Your task to perform on an android device: Search for the top rated book on goodreads. Image 0: 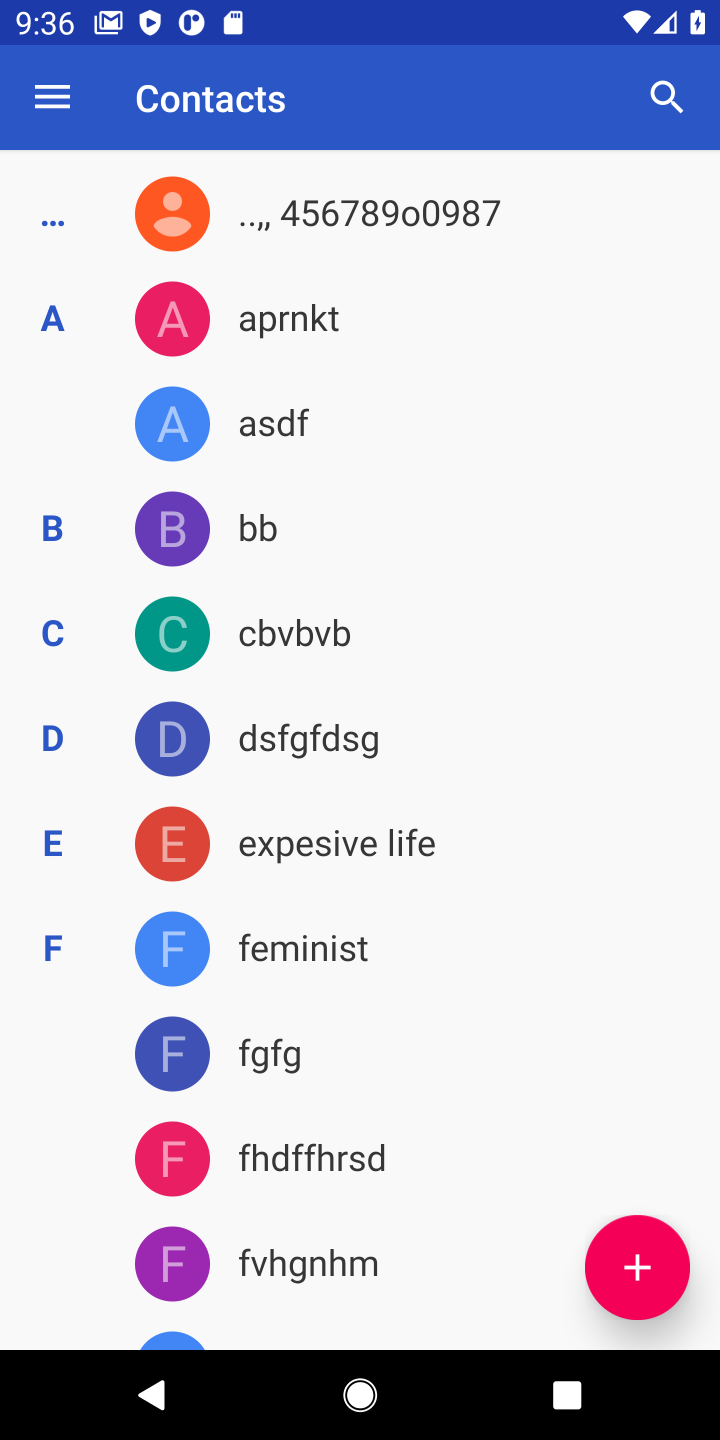
Step 0: press home button
Your task to perform on an android device: Search for the top rated book on goodreads. Image 1: 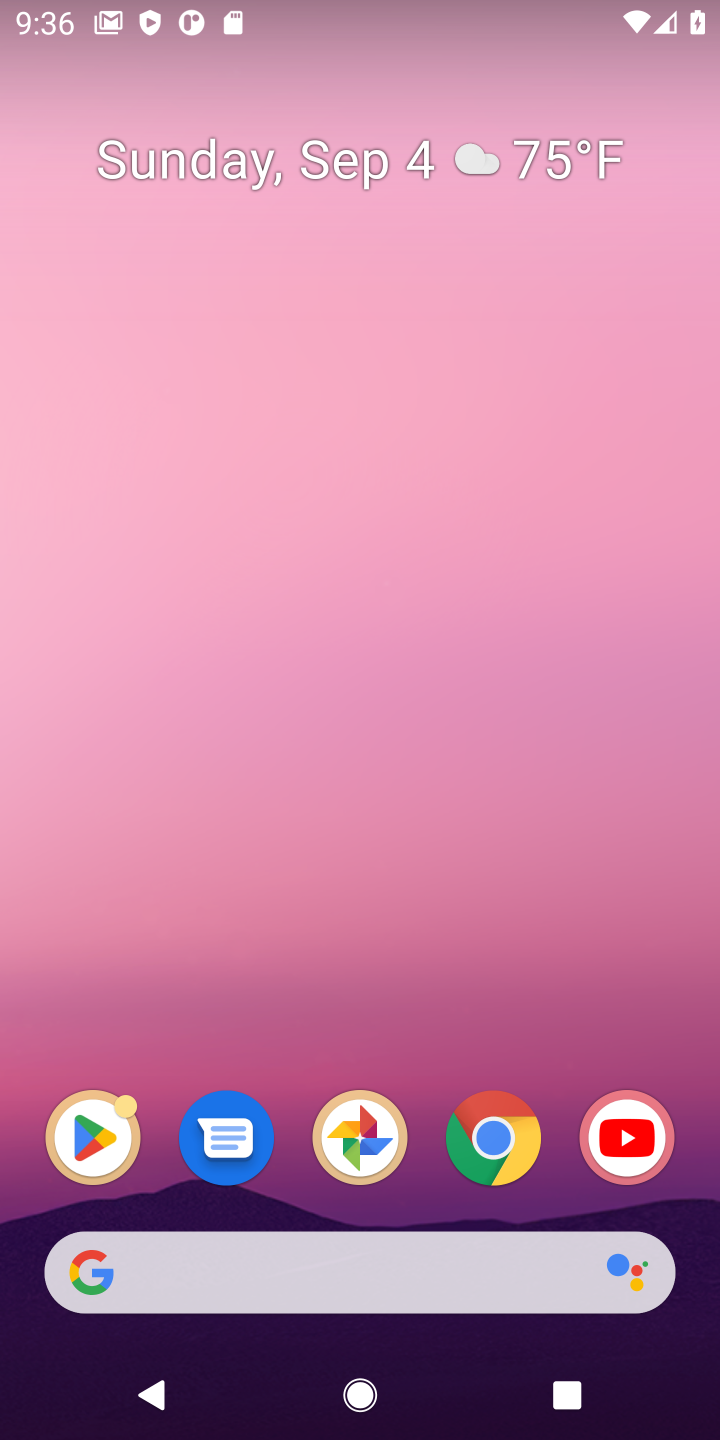
Step 1: click (507, 1145)
Your task to perform on an android device: Search for the top rated book on goodreads. Image 2: 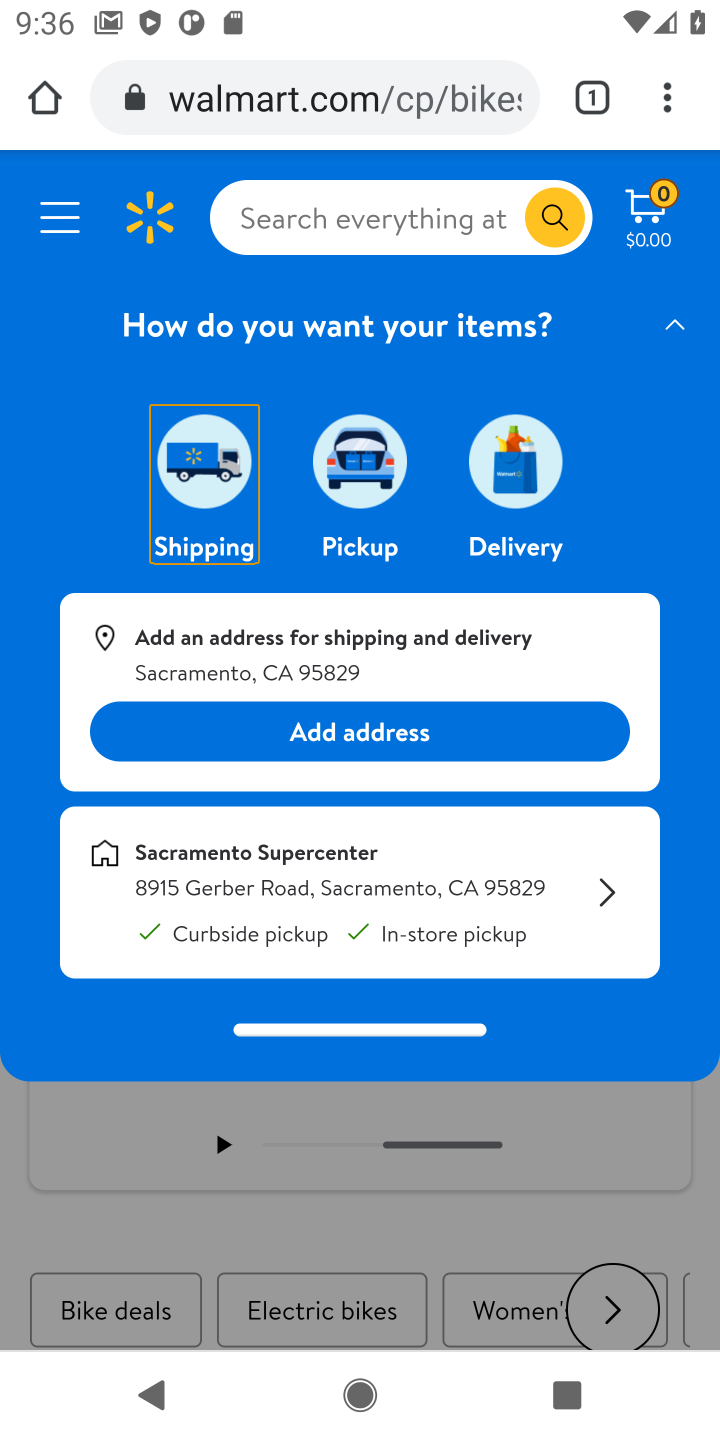
Step 2: click (389, 107)
Your task to perform on an android device: Search for the top rated book on goodreads. Image 3: 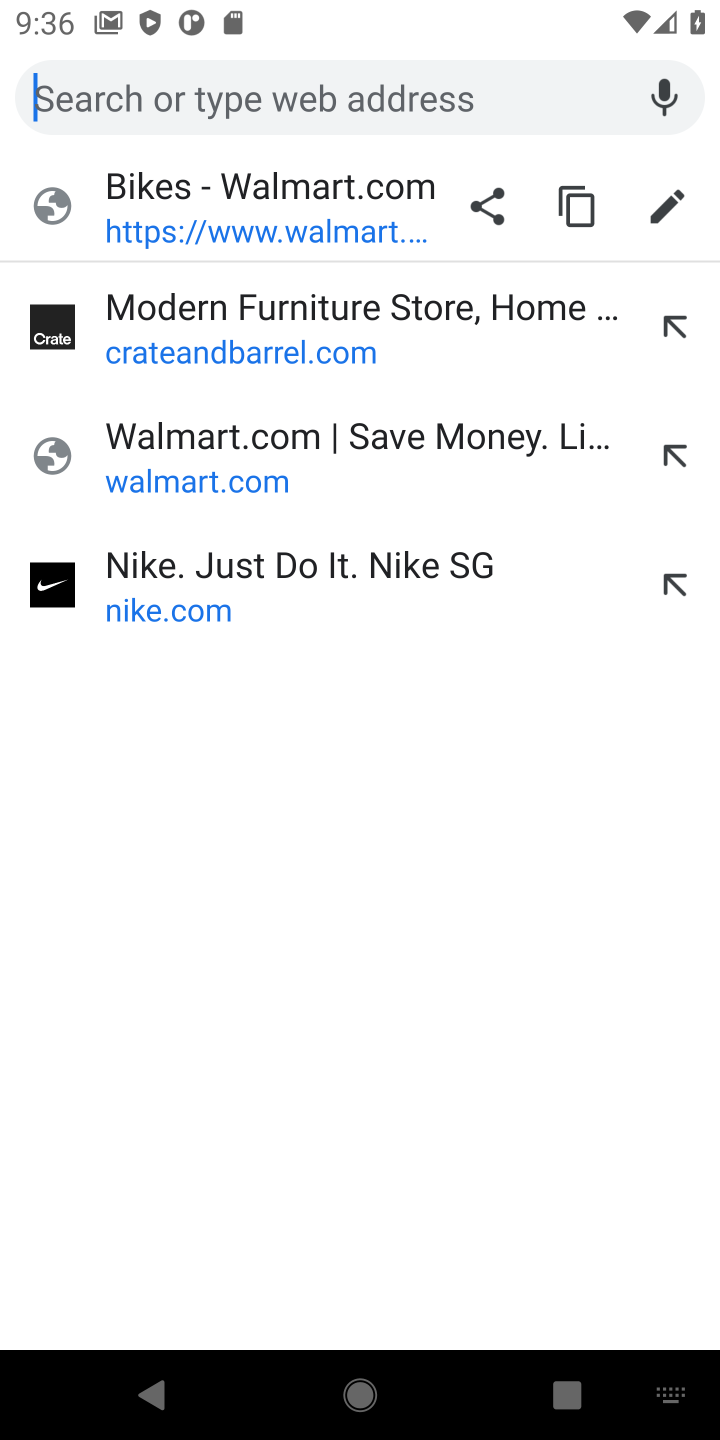
Step 3: type "goodreads"
Your task to perform on an android device: Search for the top rated book on goodreads. Image 4: 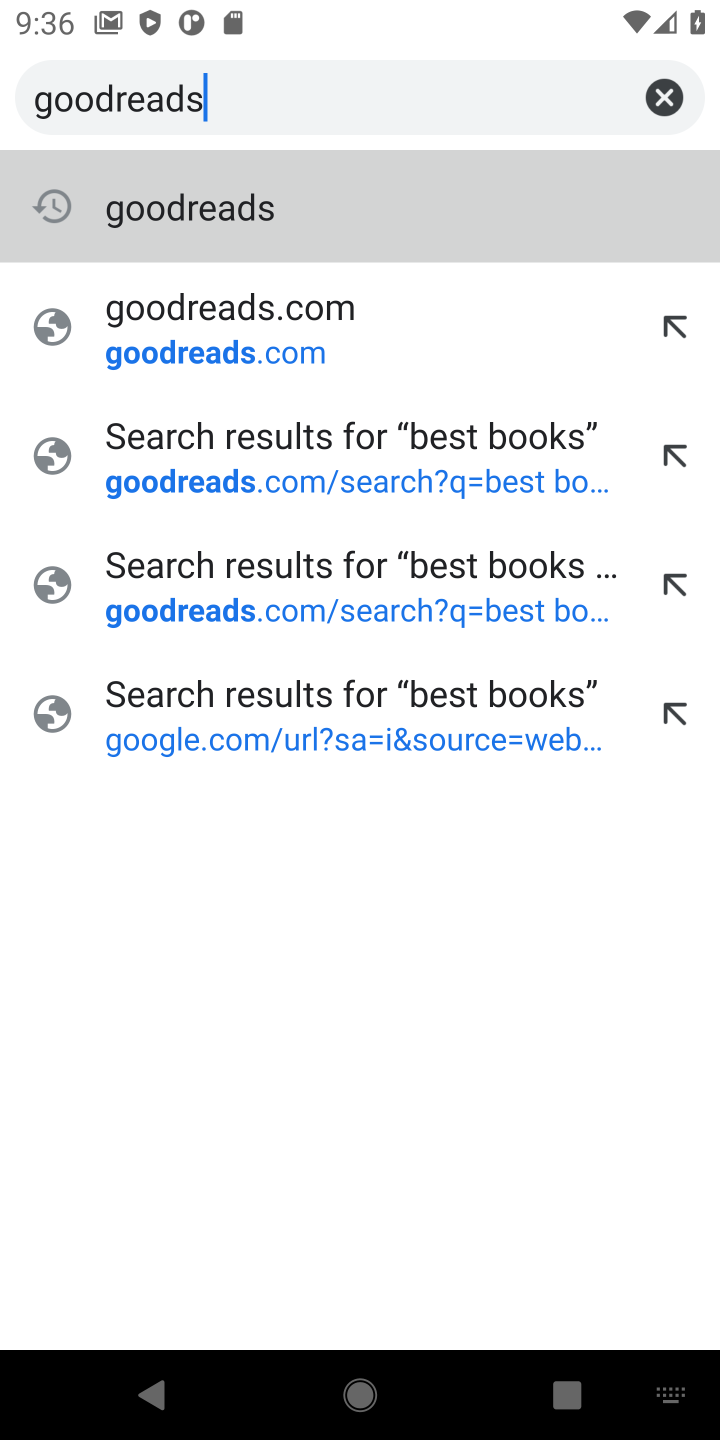
Step 4: click (360, 320)
Your task to perform on an android device: Search for the top rated book on goodreads. Image 5: 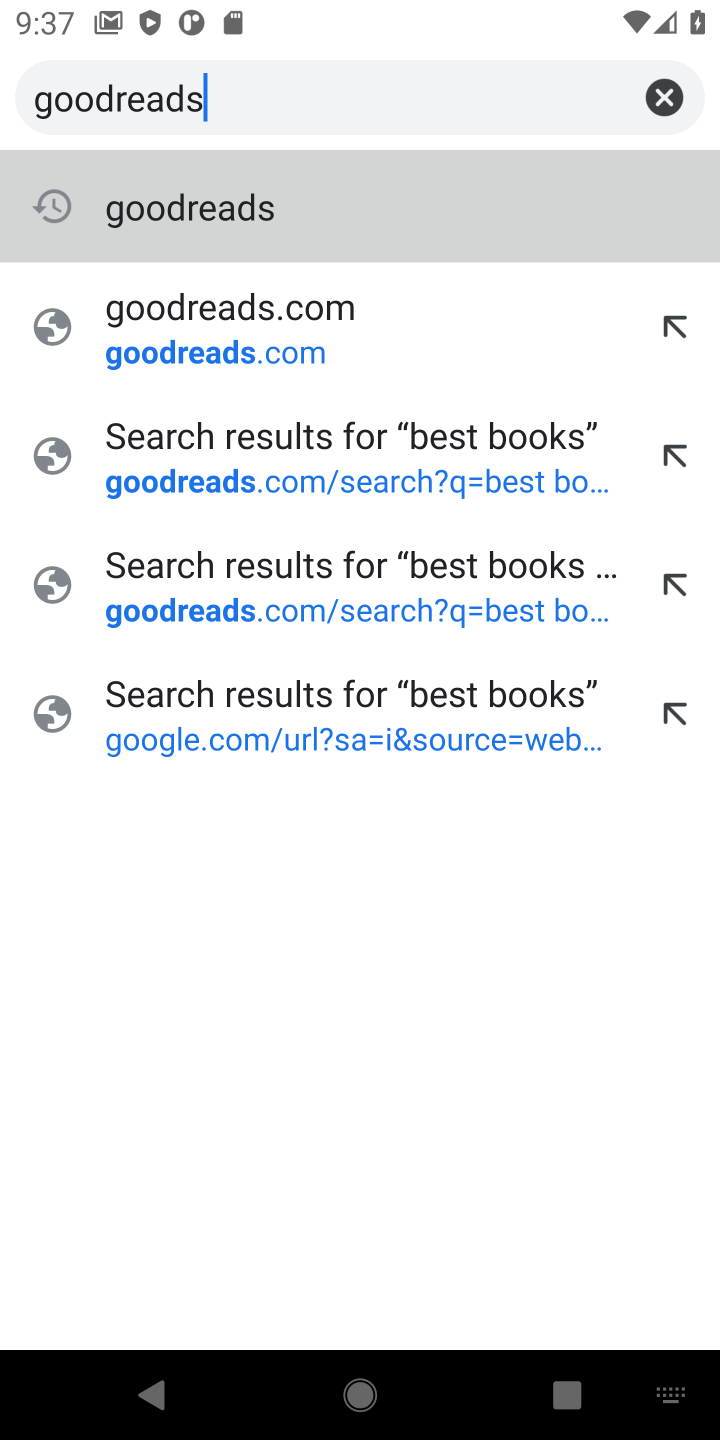
Step 5: click (360, 320)
Your task to perform on an android device: Search for the top rated book on goodreads. Image 6: 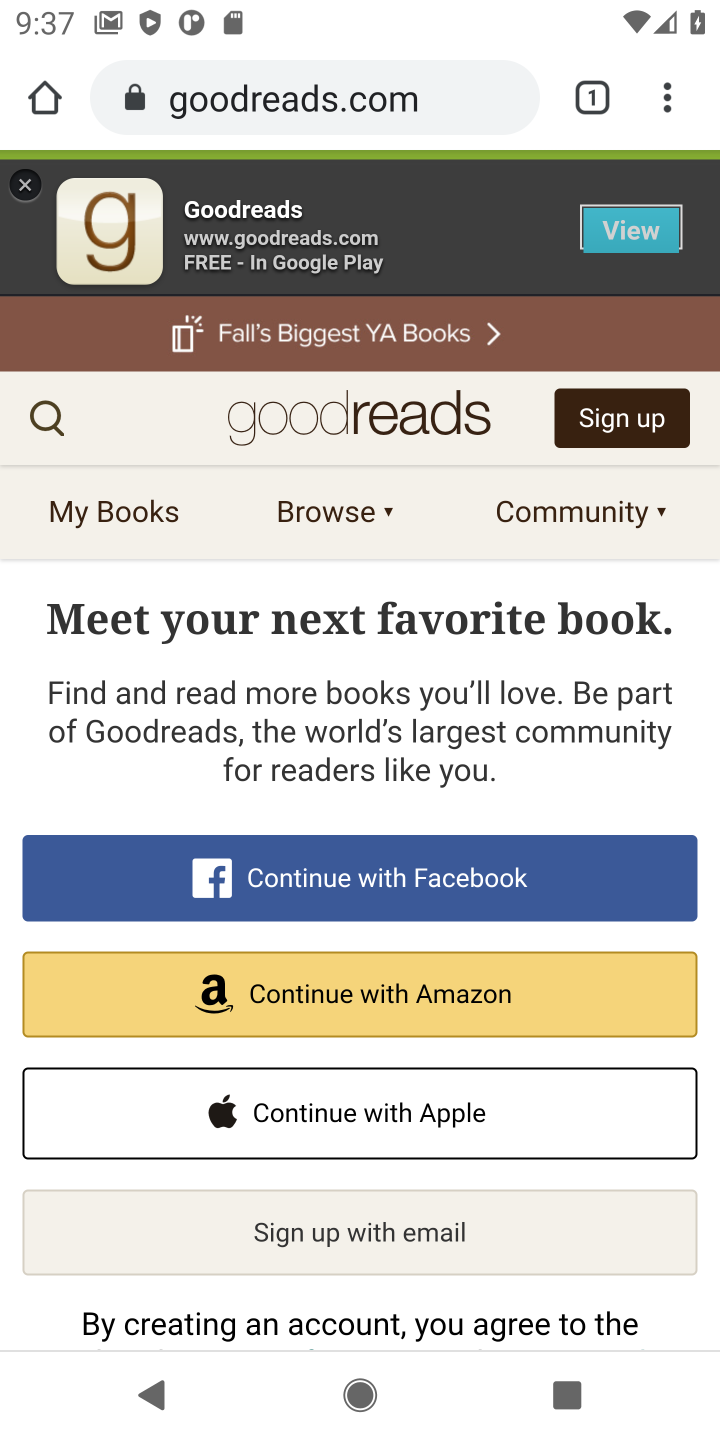
Step 6: click (18, 438)
Your task to perform on an android device: Search for the top rated book on goodreads. Image 7: 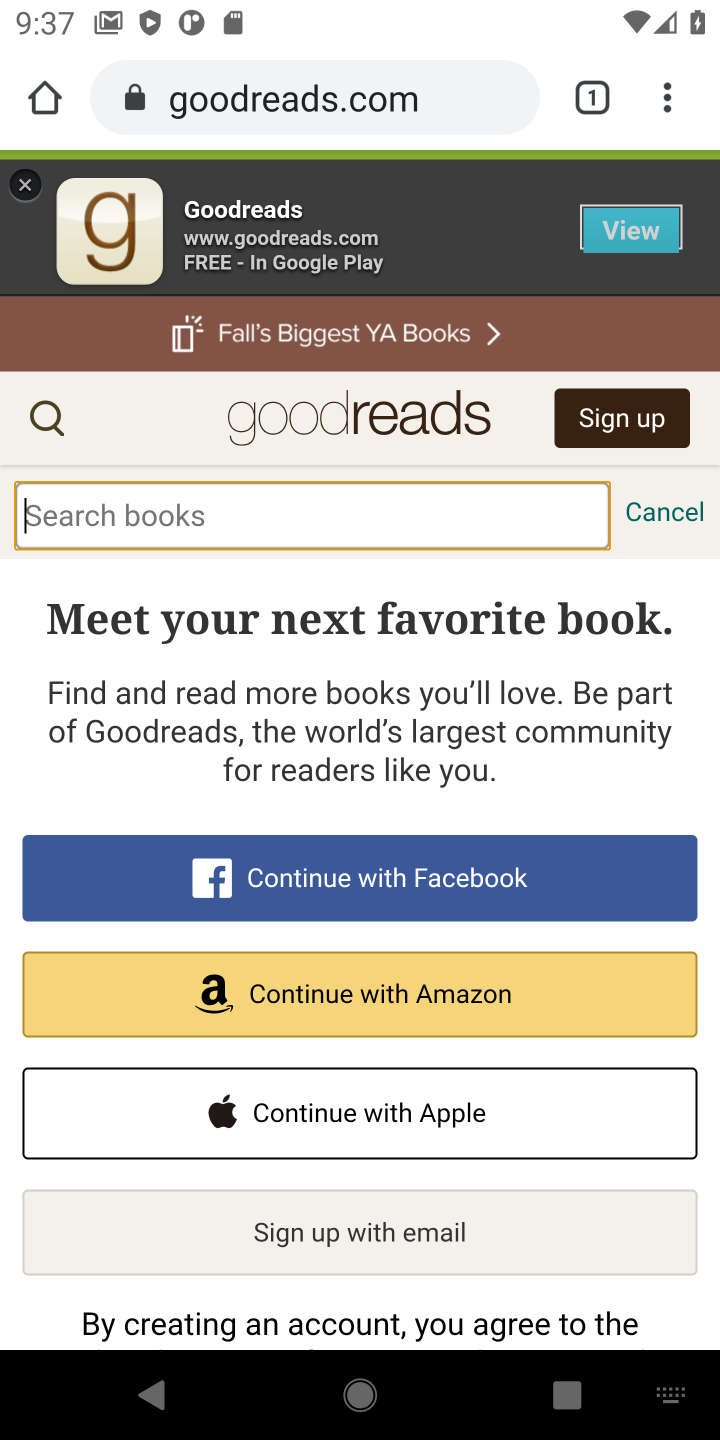
Step 7: type "top rated book"
Your task to perform on an android device: Search for the top rated book on goodreads. Image 8: 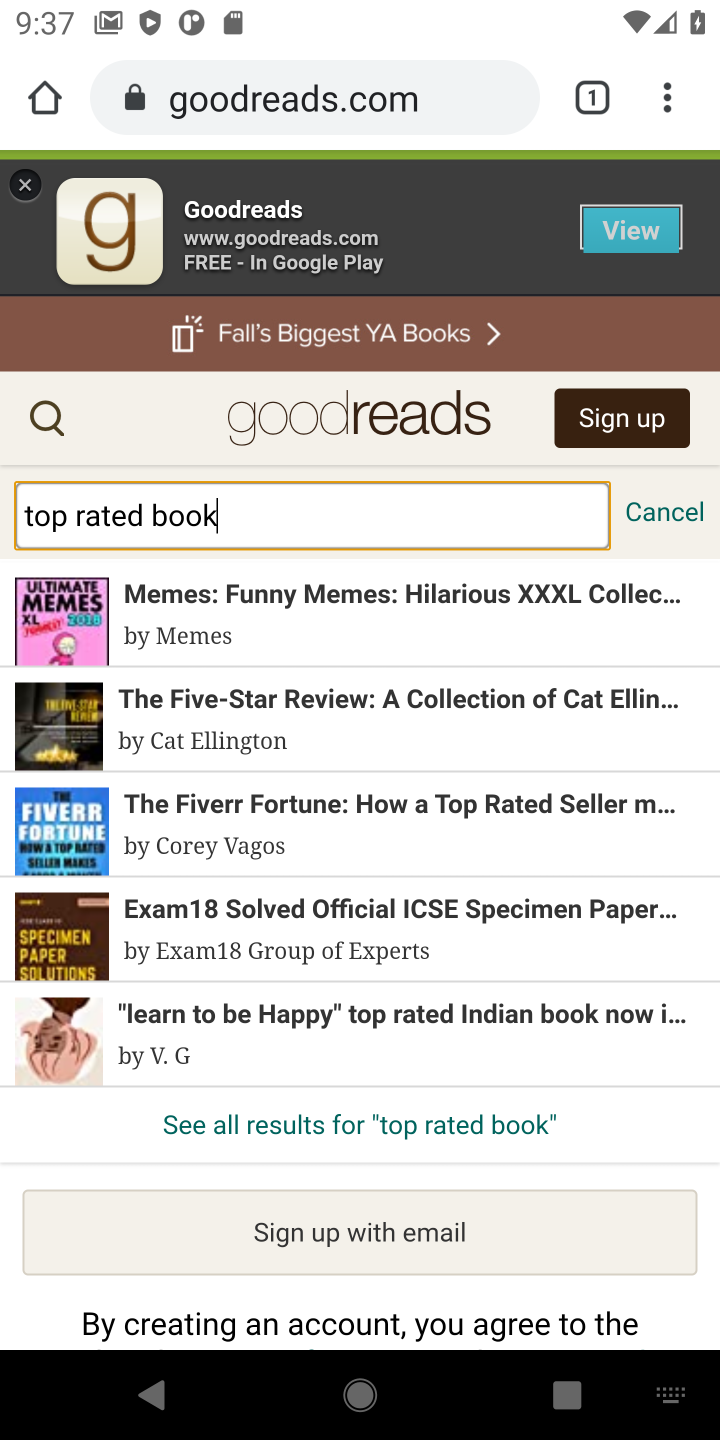
Step 8: press enter
Your task to perform on an android device: Search for the top rated book on goodreads. Image 9: 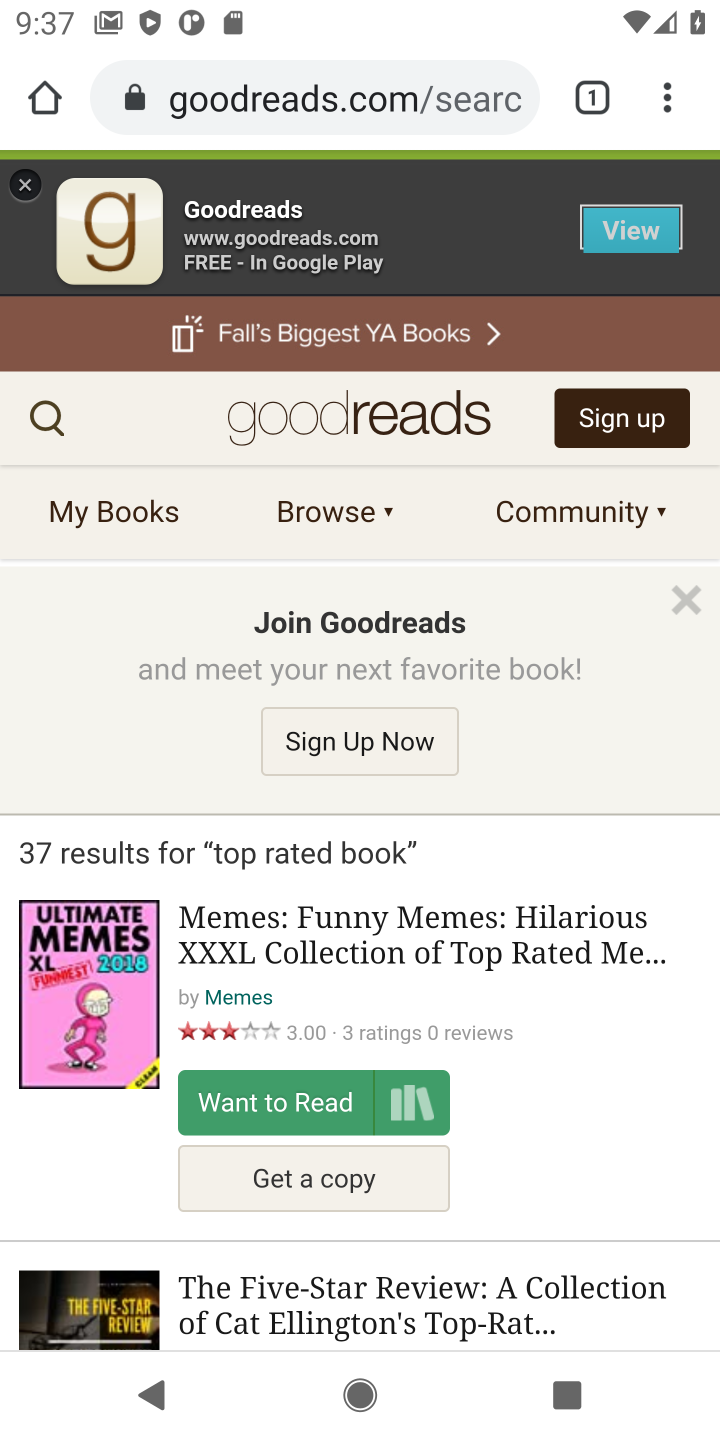
Step 9: task complete